Your task to perform on an android device: delete browsing data in the chrome app Image 0: 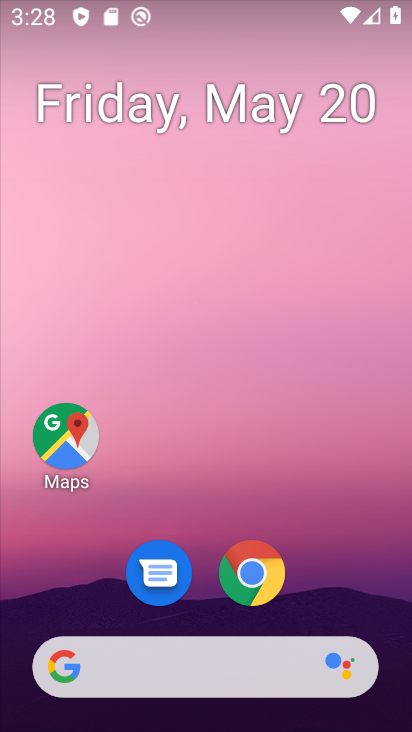
Step 0: click (252, 575)
Your task to perform on an android device: delete browsing data in the chrome app Image 1: 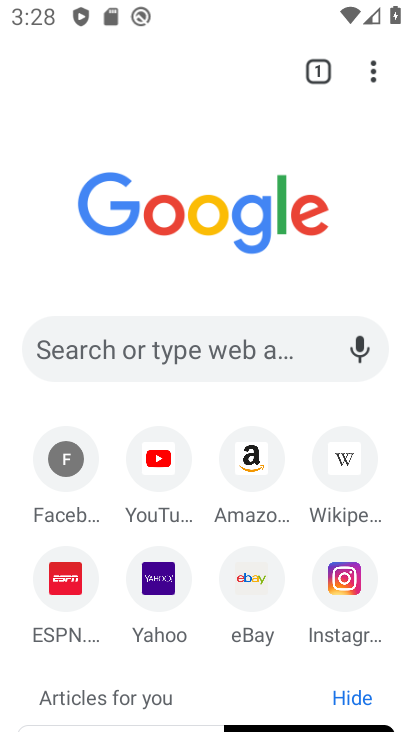
Step 1: click (372, 76)
Your task to perform on an android device: delete browsing data in the chrome app Image 2: 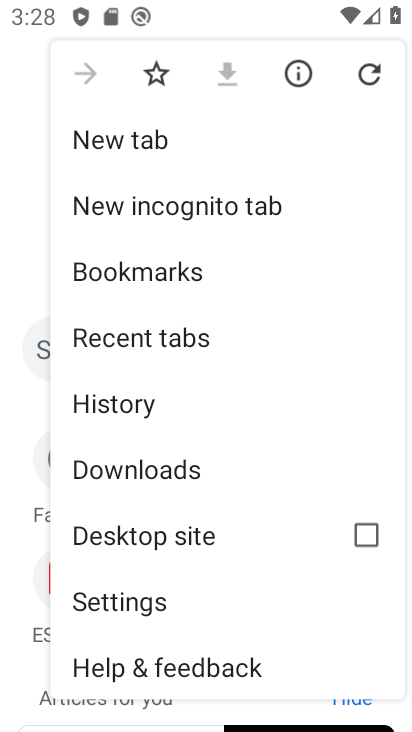
Step 2: click (120, 401)
Your task to perform on an android device: delete browsing data in the chrome app Image 3: 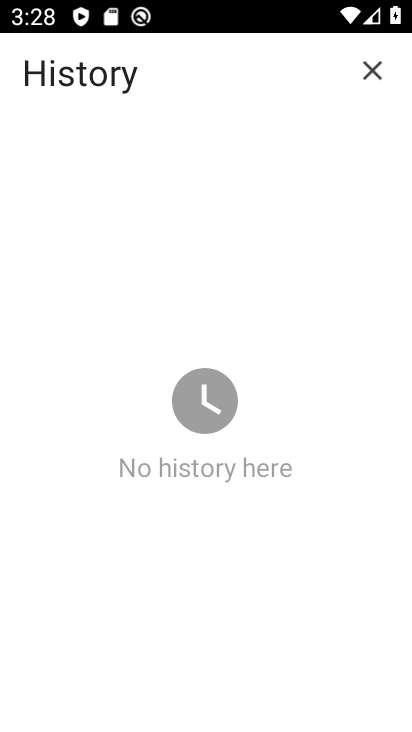
Step 3: task complete